Your task to perform on an android device: check the backup settings in the google photos Image 0: 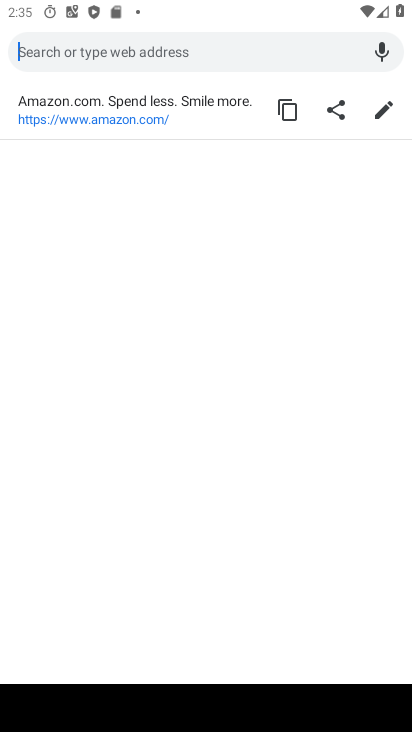
Step 0: drag from (268, 429) to (299, 54)
Your task to perform on an android device: check the backup settings in the google photos Image 1: 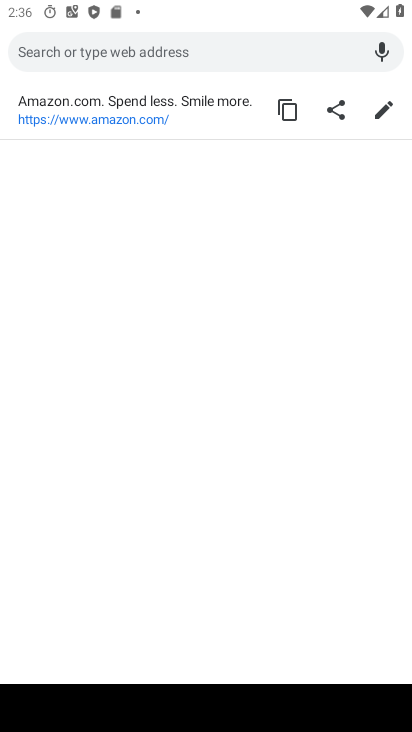
Step 1: drag from (217, 425) to (232, 189)
Your task to perform on an android device: check the backup settings in the google photos Image 2: 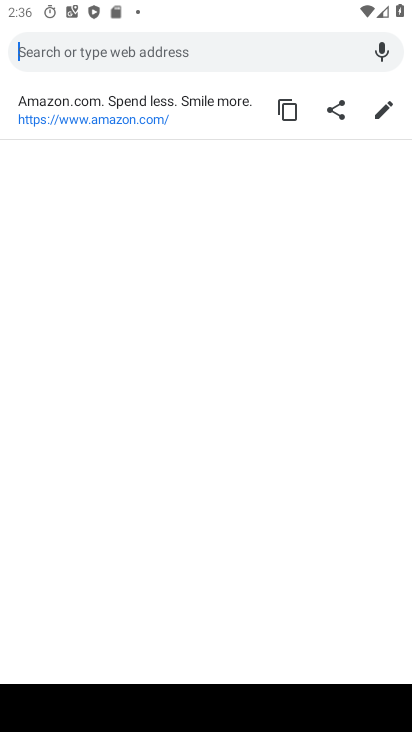
Step 2: drag from (247, 400) to (411, 629)
Your task to perform on an android device: check the backup settings in the google photos Image 3: 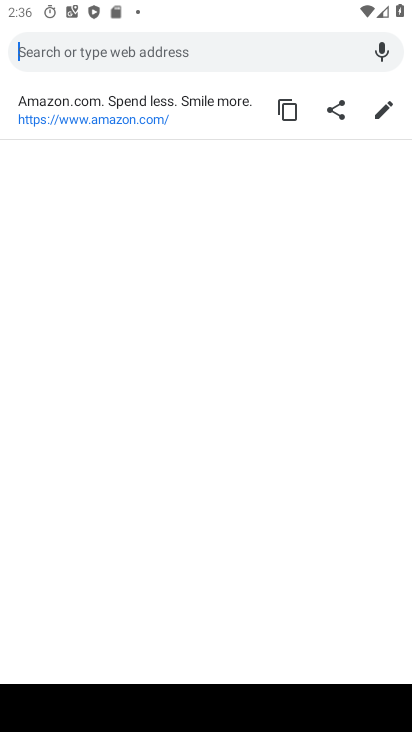
Step 3: press home button
Your task to perform on an android device: check the backup settings in the google photos Image 4: 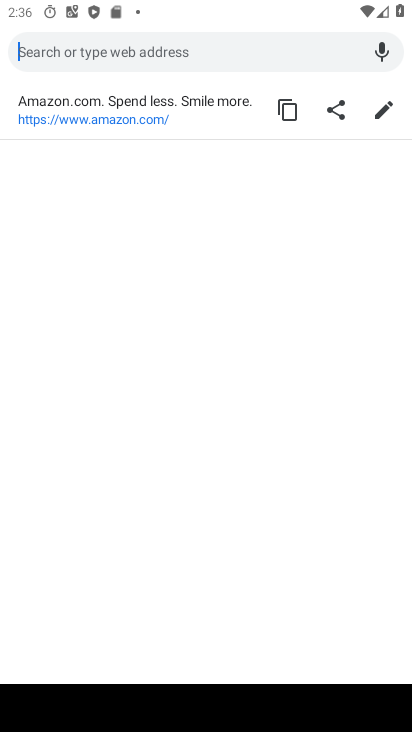
Step 4: drag from (396, 652) to (305, 109)
Your task to perform on an android device: check the backup settings in the google photos Image 5: 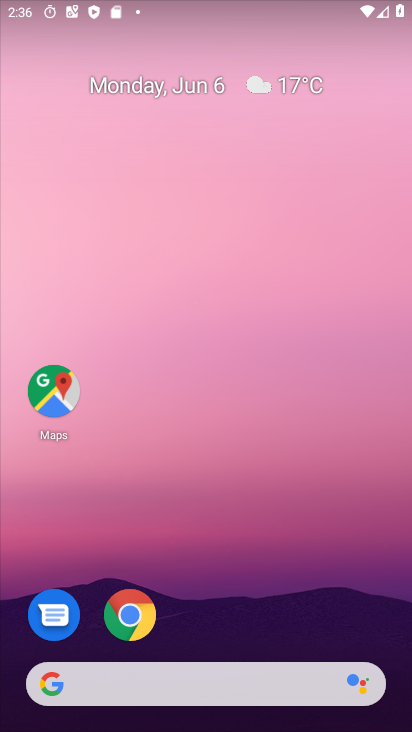
Step 5: drag from (209, 593) to (268, 158)
Your task to perform on an android device: check the backup settings in the google photos Image 6: 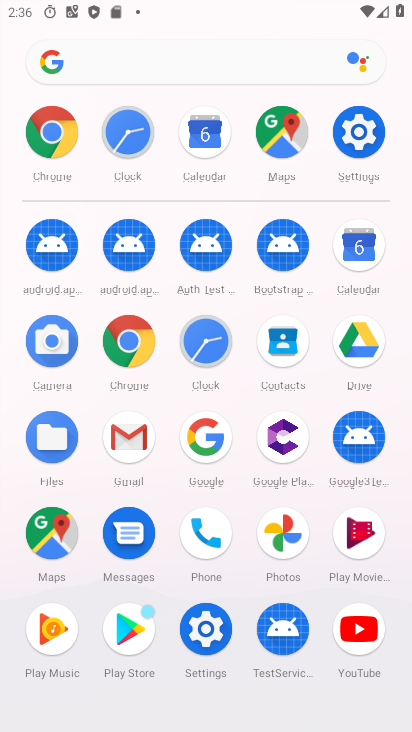
Step 6: click (284, 536)
Your task to perform on an android device: check the backup settings in the google photos Image 7: 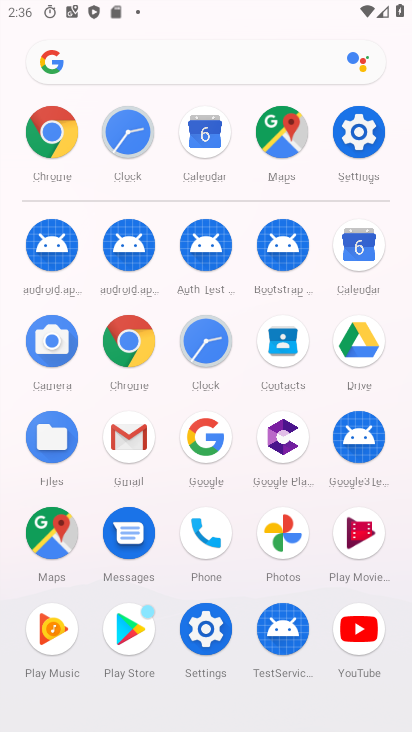
Step 7: click (284, 536)
Your task to perform on an android device: check the backup settings in the google photos Image 8: 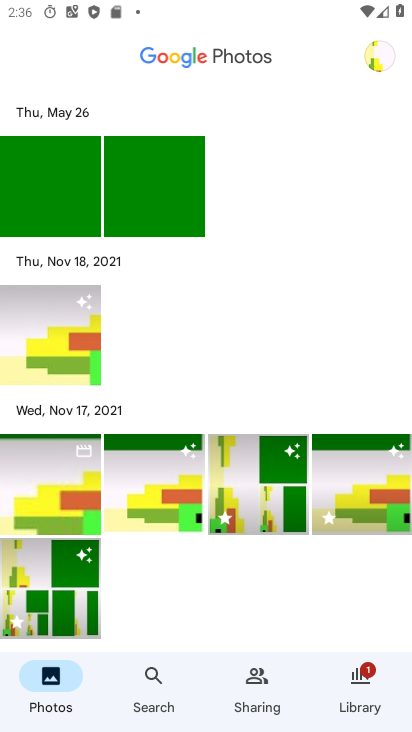
Step 8: click (375, 60)
Your task to perform on an android device: check the backup settings in the google photos Image 9: 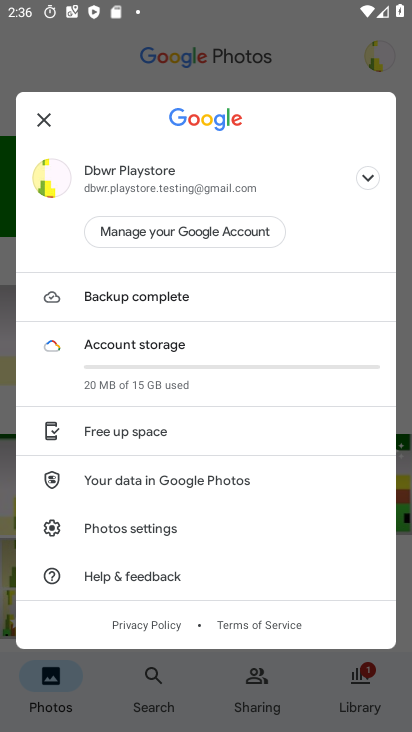
Step 9: click (143, 534)
Your task to perform on an android device: check the backup settings in the google photos Image 10: 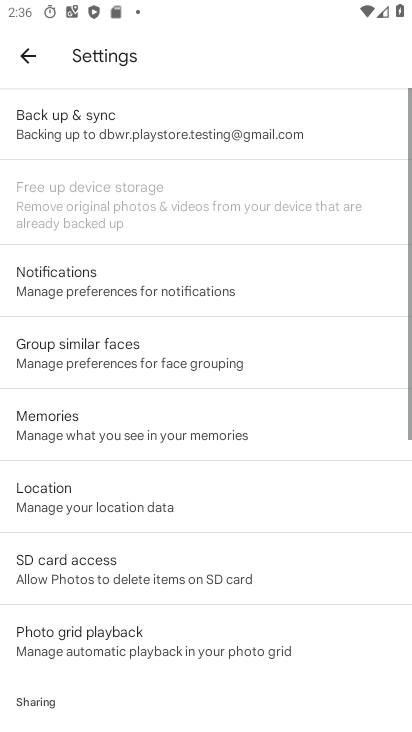
Step 10: drag from (145, 535) to (172, 64)
Your task to perform on an android device: check the backup settings in the google photos Image 11: 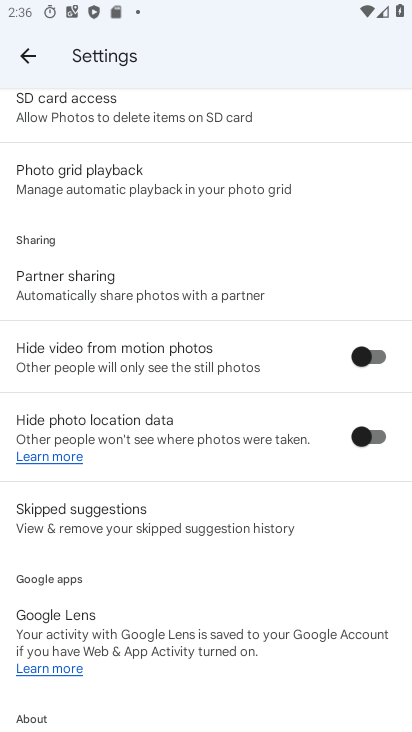
Step 11: drag from (235, 572) to (238, 196)
Your task to perform on an android device: check the backup settings in the google photos Image 12: 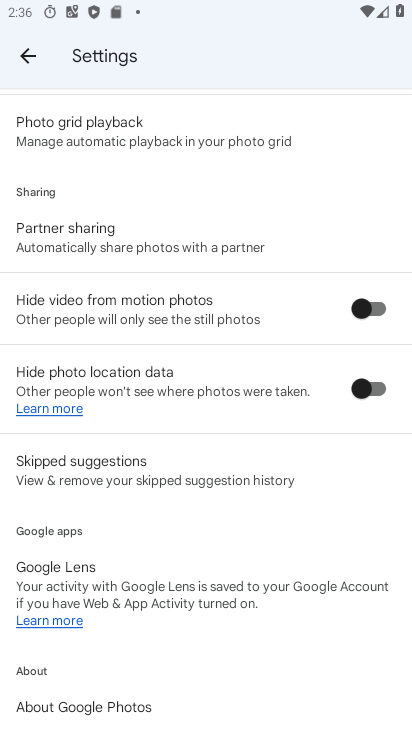
Step 12: drag from (157, 161) to (282, 666)
Your task to perform on an android device: check the backup settings in the google photos Image 13: 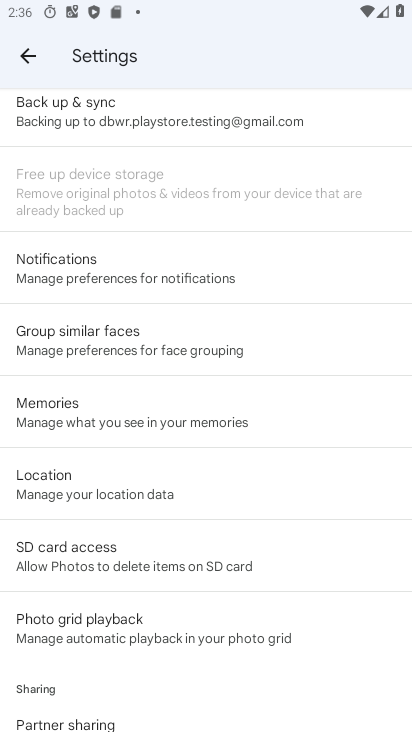
Step 13: click (109, 115)
Your task to perform on an android device: check the backup settings in the google photos Image 14: 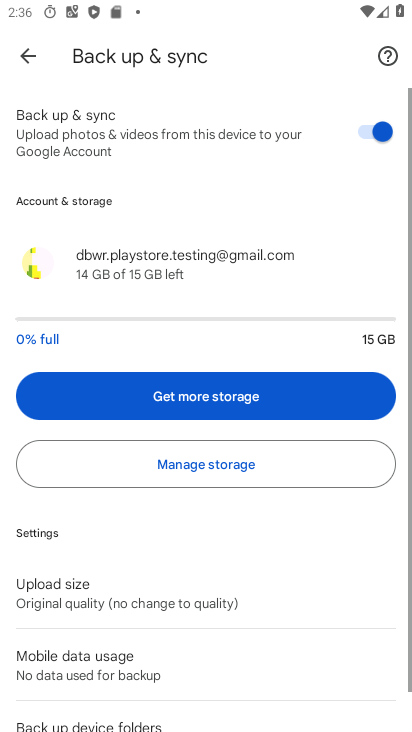
Step 14: drag from (196, 414) to (253, 116)
Your task to perform on an android device: check the backup settings in the google photos Image 15: 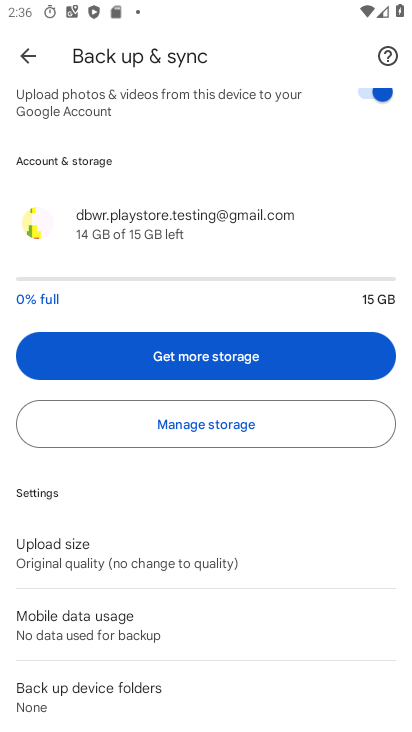
Step 15: click (105, 555)
Your task to perform on an android device: check the backup settings in the google photos Image 16: 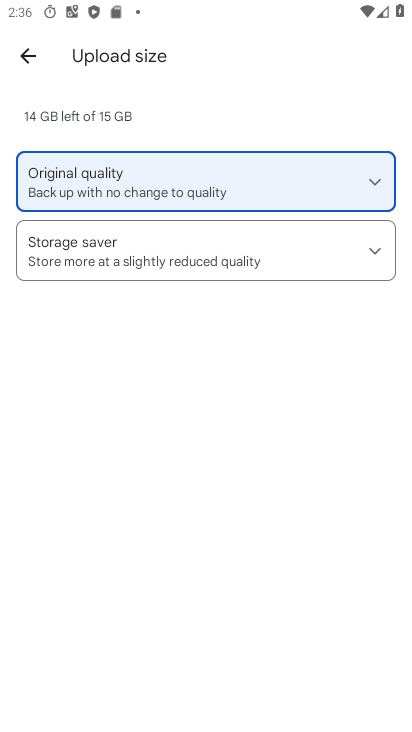
Step 16: click (24, 46)
Your task to perform on an android device: check the backup settings in the google photos Image 17: 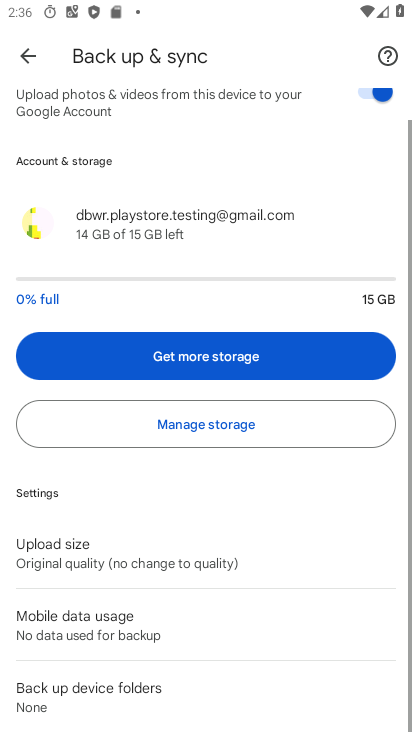
Step 17: task complete